Your task to perform on an android device: find snoozed emails in the gmail app Image 0: 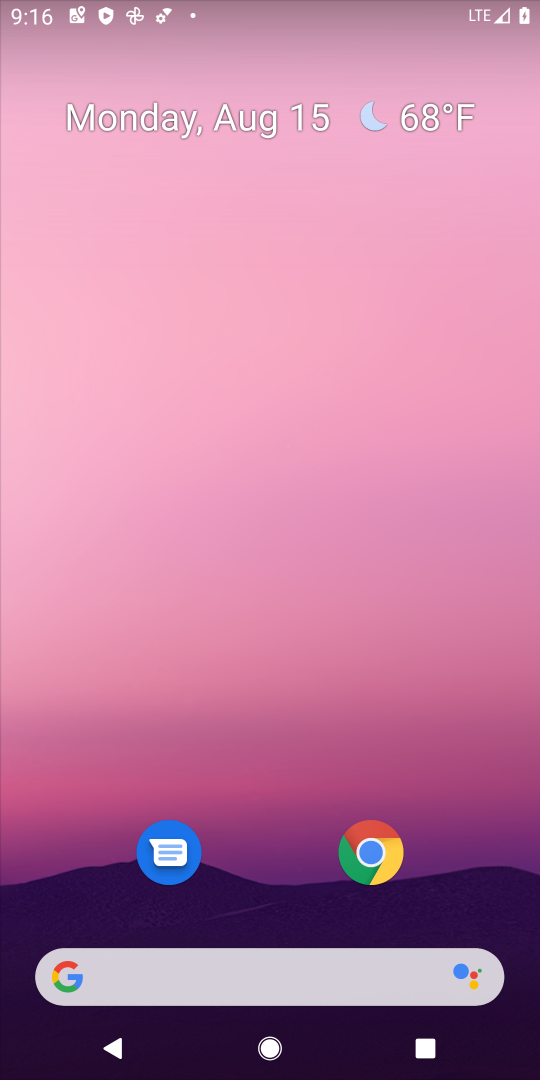
Step 0: drag from (187, 974) to (180, 147)
Your task to perform on an android device: find snoozed emails in the gmail app Image 1: 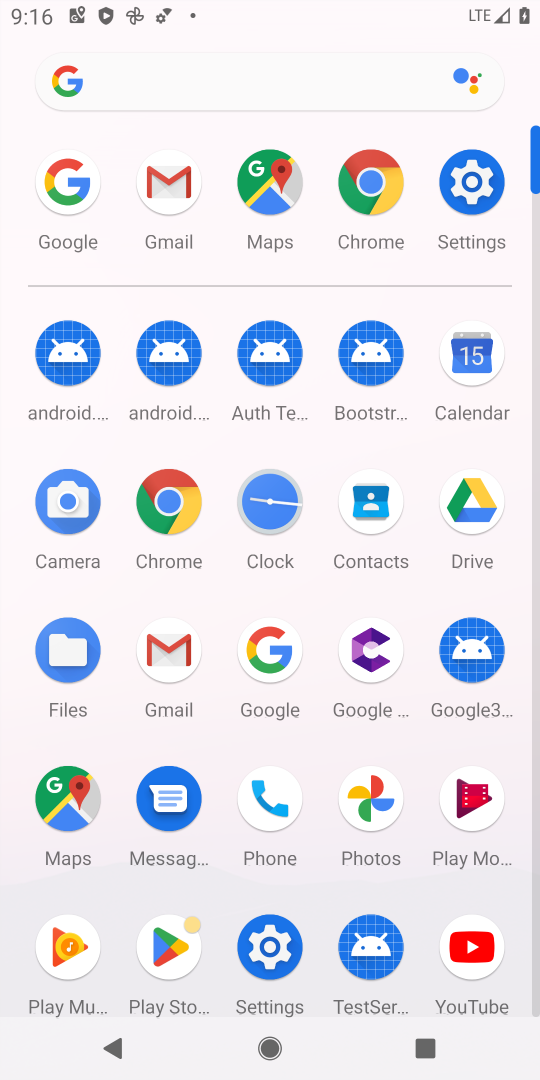
Step 1: click (167, 182)
Your task to perform on an android device: find snoozed emails in the gmail app Image 2: 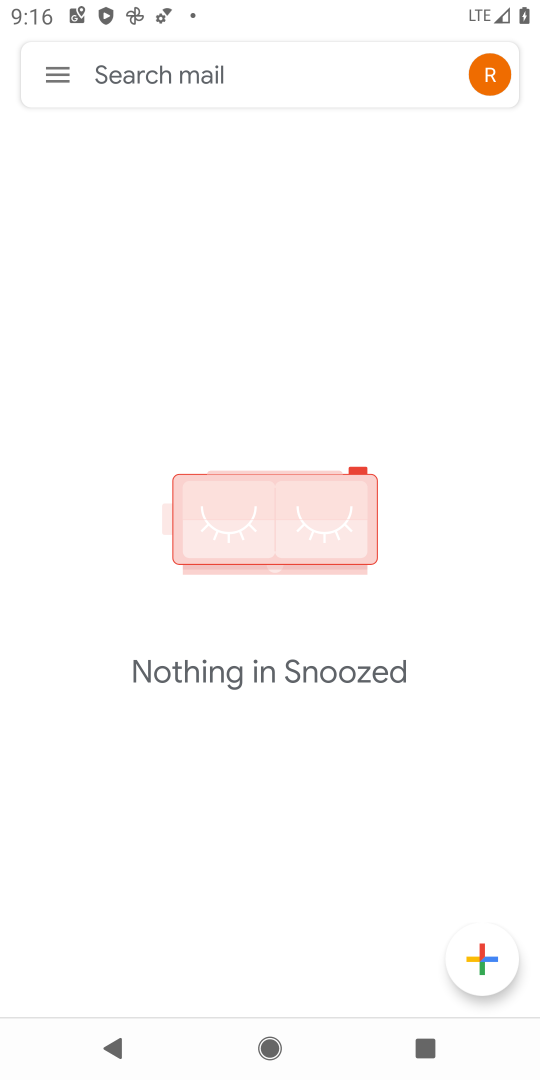
Step 2: click (35, 70)
Your task to perform on an android device: find snoozed emails in the gmail app Image 3: 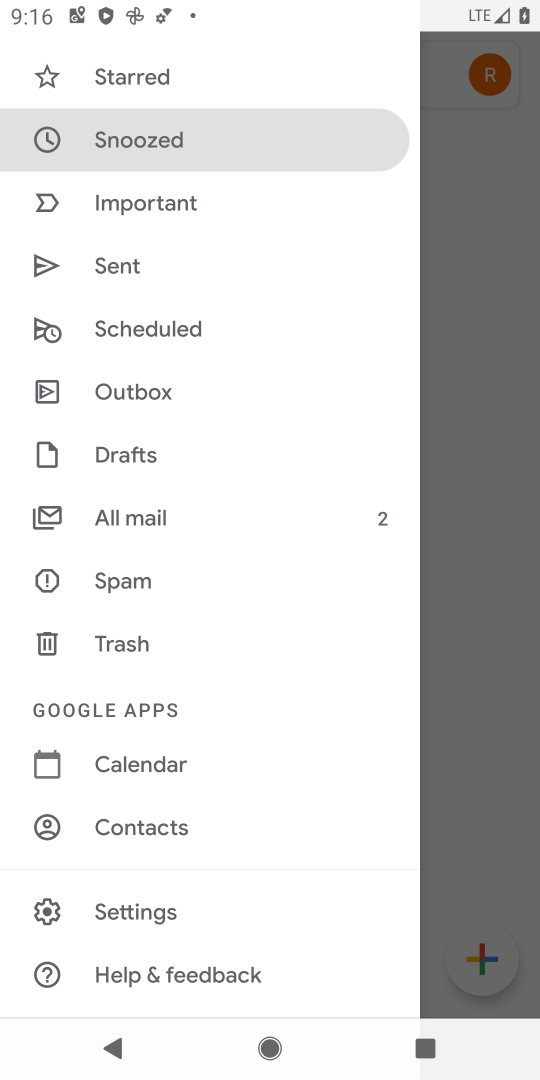
Step 3: task complete